Your task to perform on an android device: check battery use Image 0: 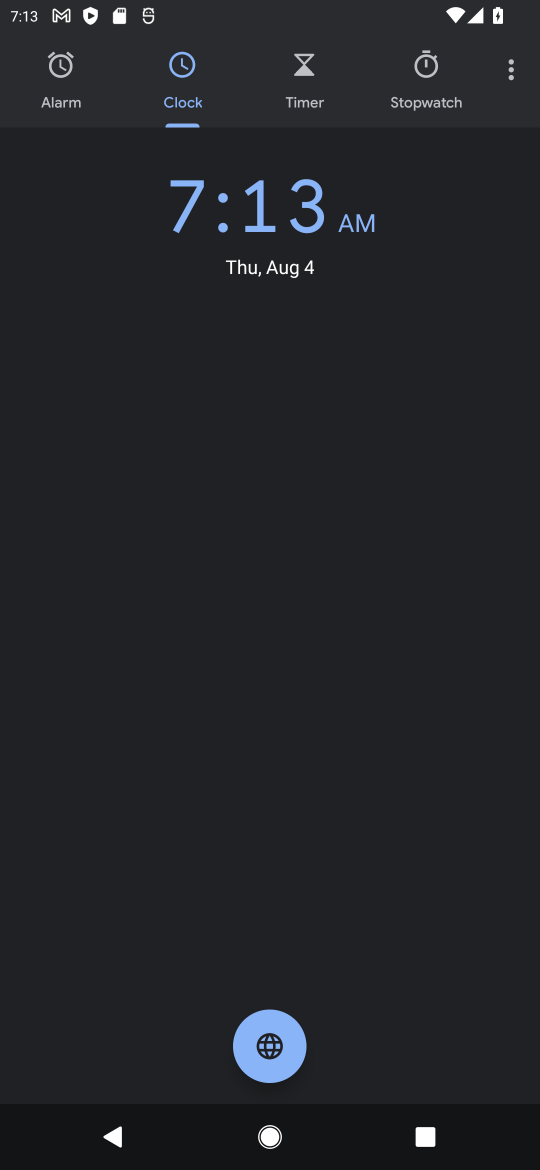
Step 0: press home button
Your task to perform on an android device: check battery use Image 1: 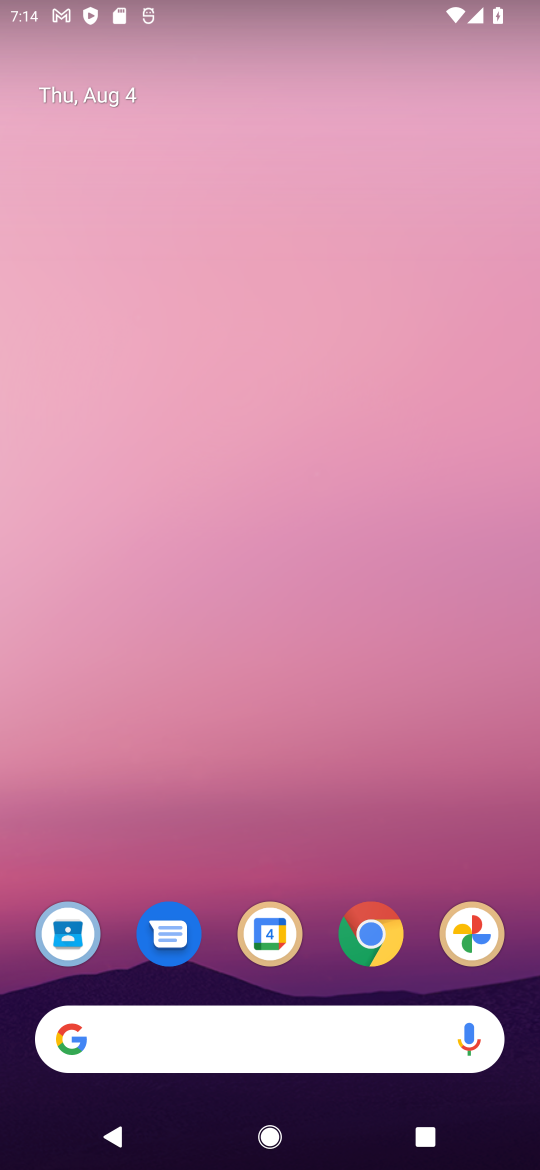
Step 1: drag from (259, 360) to (240, 183)
Your task to perform on an android device: check battery use Image 2: 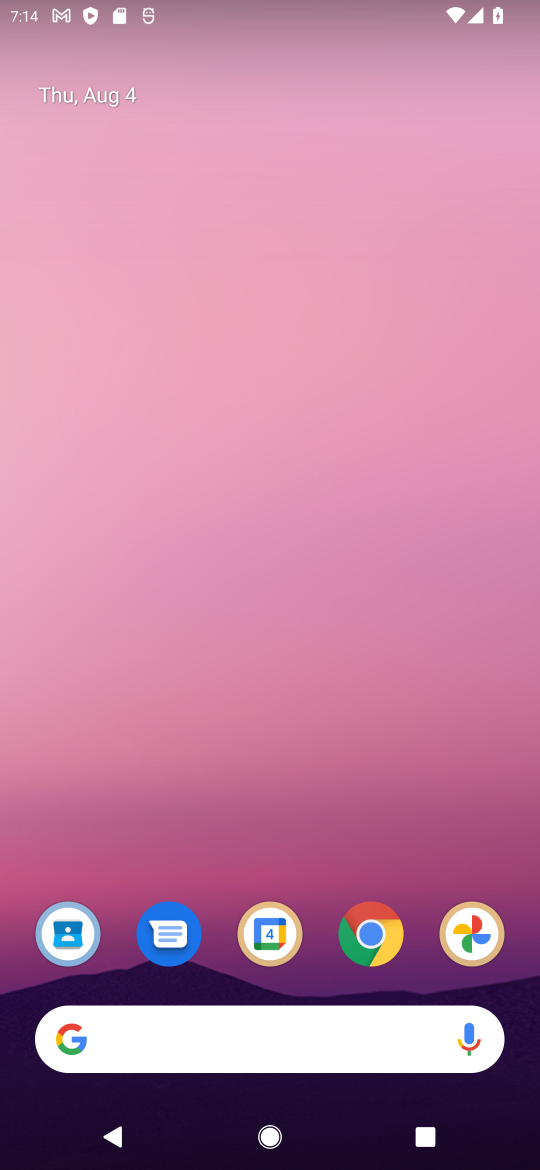
Step 2: drag from (250, 983) to (166, 359)
Your task to perform on an android device: check battery use Image 3: 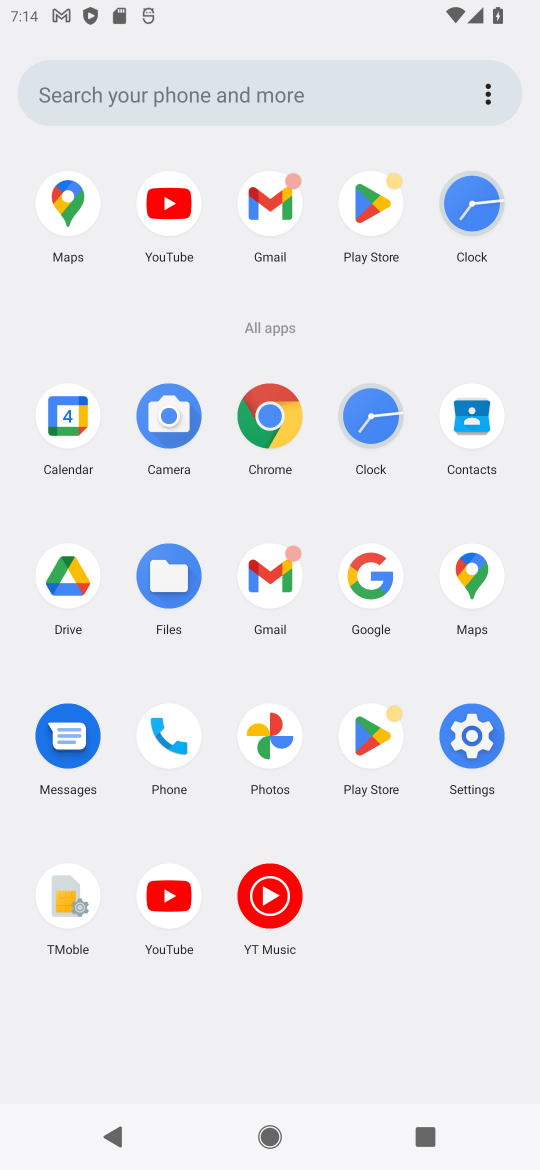
Step 3: click (498, 731)
Your task to perform on an android device: check battery use Image 4: 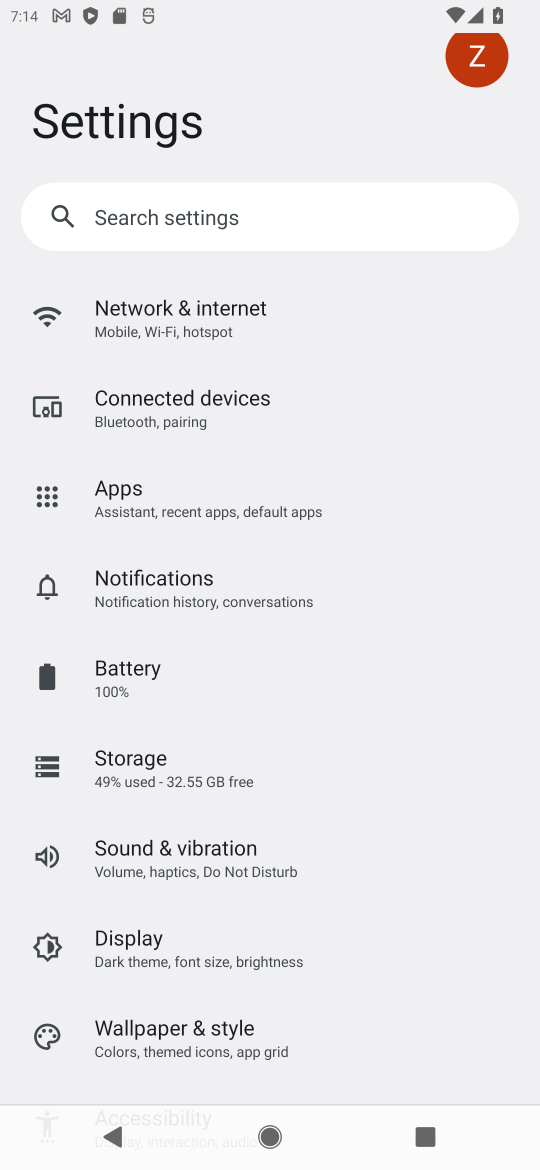
Step 4: click (152, 684)
Your task to perform on an android device: check battery use Image 5: 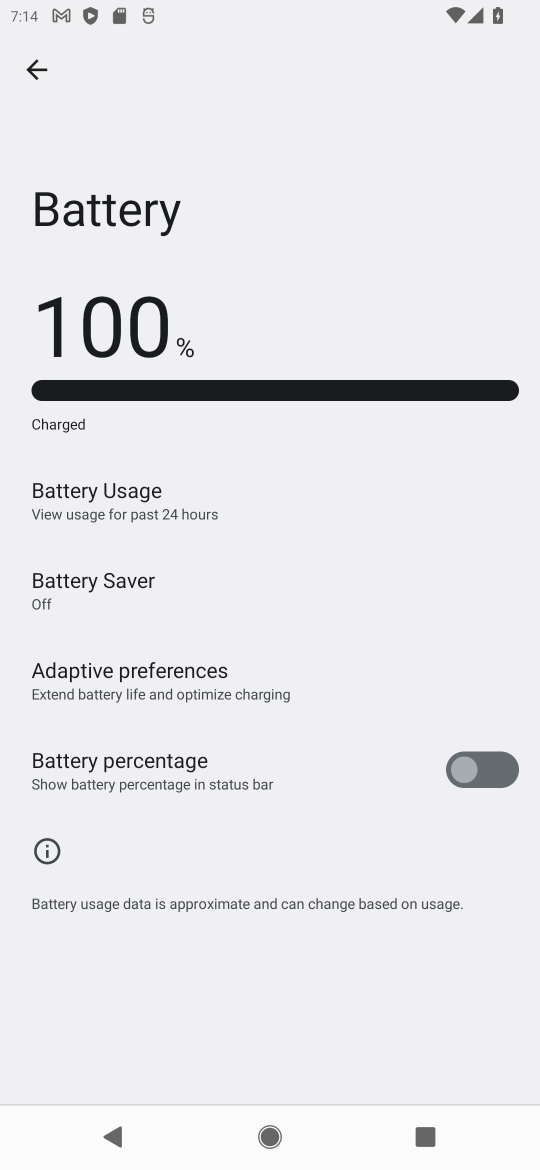
Step 5: click (175, 485)
Your task to perform on an android device: check battery use Image 6: 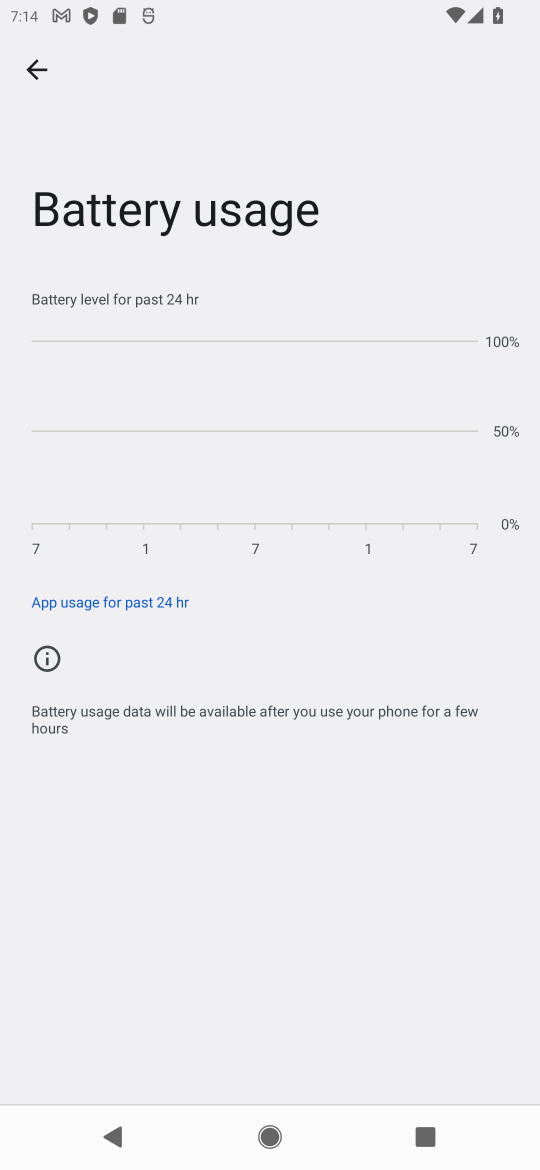
Step 6: task complete